Your task to perform on an android device: change the upload size in google photos Image 0: 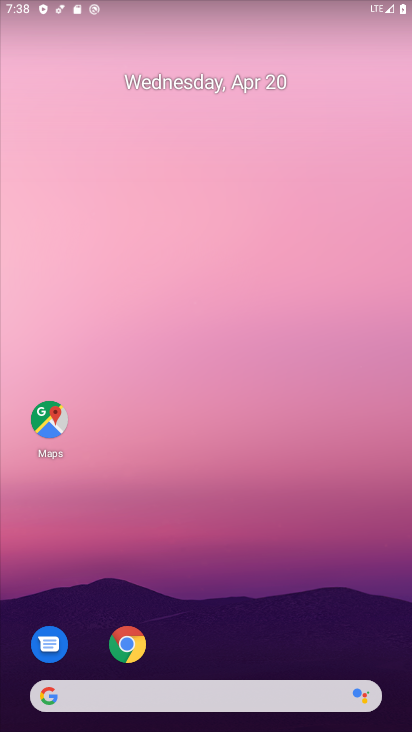
Step 0: drag from (385, 570) to (366, 8)
Your task to perform on an android device: change the upload size in google photos Image 1: 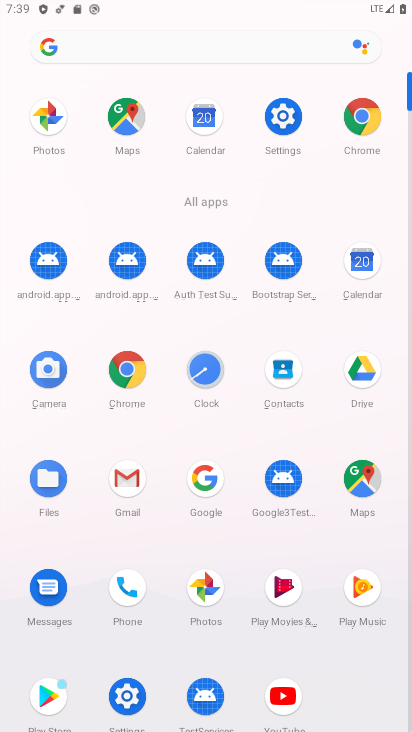
Step 1: click (46, 124)
Your task to perform on an android device: change the upload size in google photos Image 2: 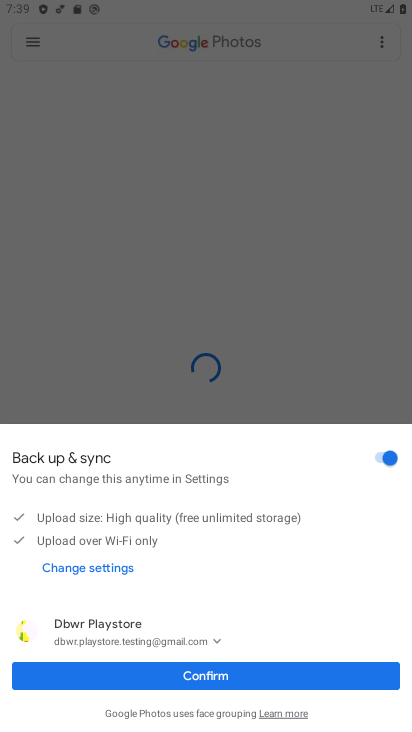
Step 2: click (263, 679)
Your task to perform on an android device: change the upload size in google photos Image 3: 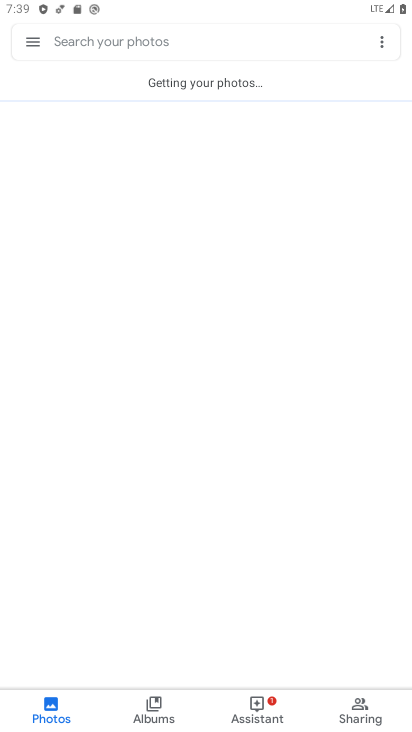
Step 3: click (27, 45)
Your task to perform on an android device: change the upload size in google photos Image 4: 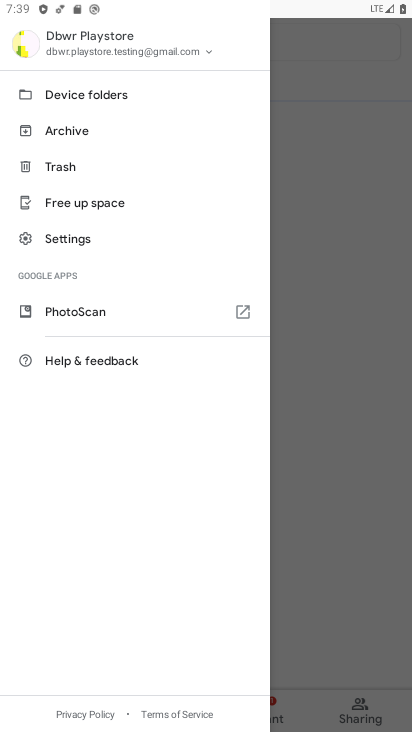
Step 4: click (61, 242)
Your task to perform on an android device: change the upload size in google photos Image 5: 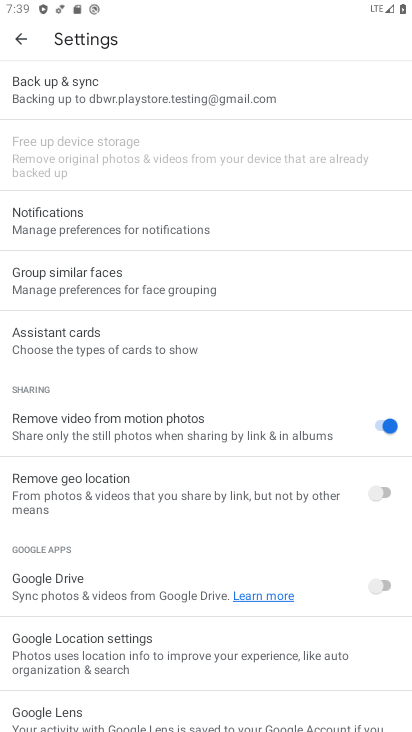
Step 5: click (88, 100)
Your task to perform on an android device: change the upload size in google photos Image 6: 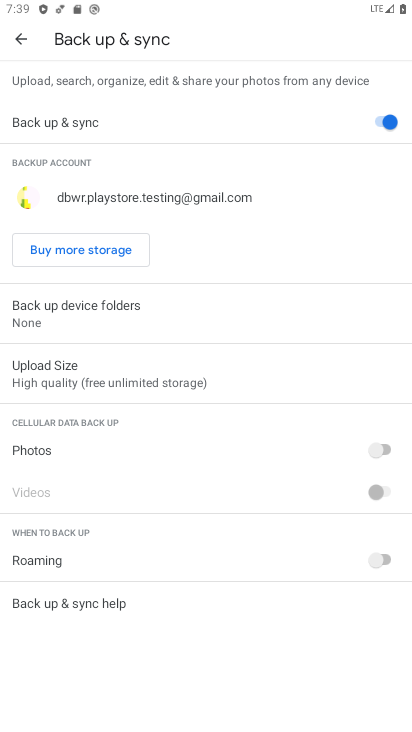
Step 6: click (87, 382)
Your task to perform on an android device: change the upload size in google photos Image 7: 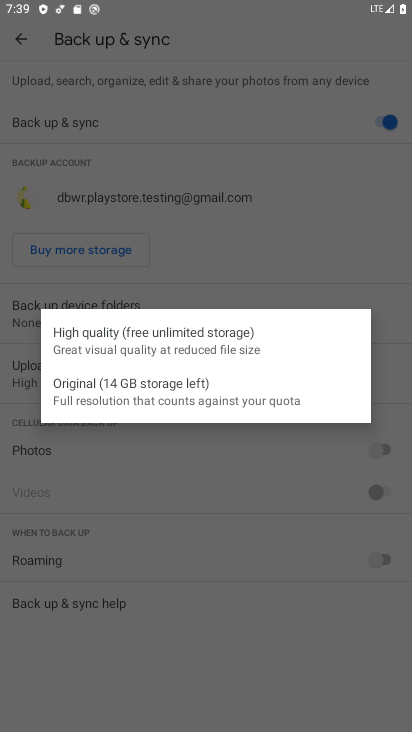
Step 7: click (87, 382)
Your task to perform on an android device: change the upload size in google photos Image 8: 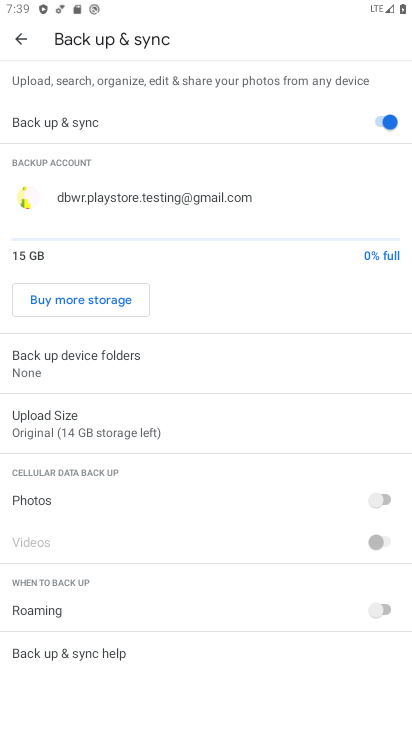
Step 8: task complete